Your task to perform on an android device: Look up the best rated gaming chairs on Target. Image 0: 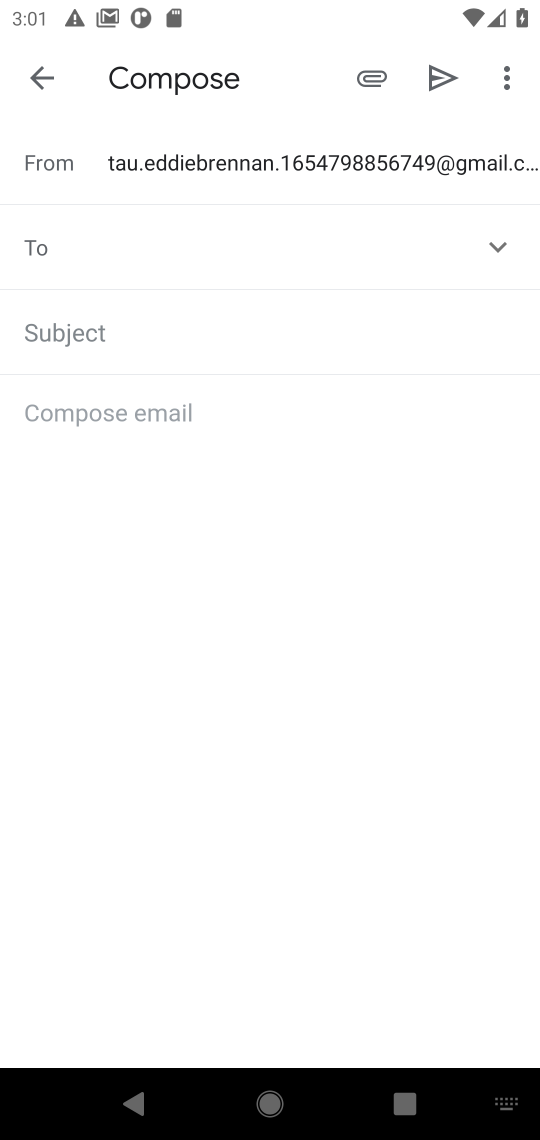
Step 0: press home button
Your task to perform on an android device: Look up the best rated gaming chairs on Target. Image 1: 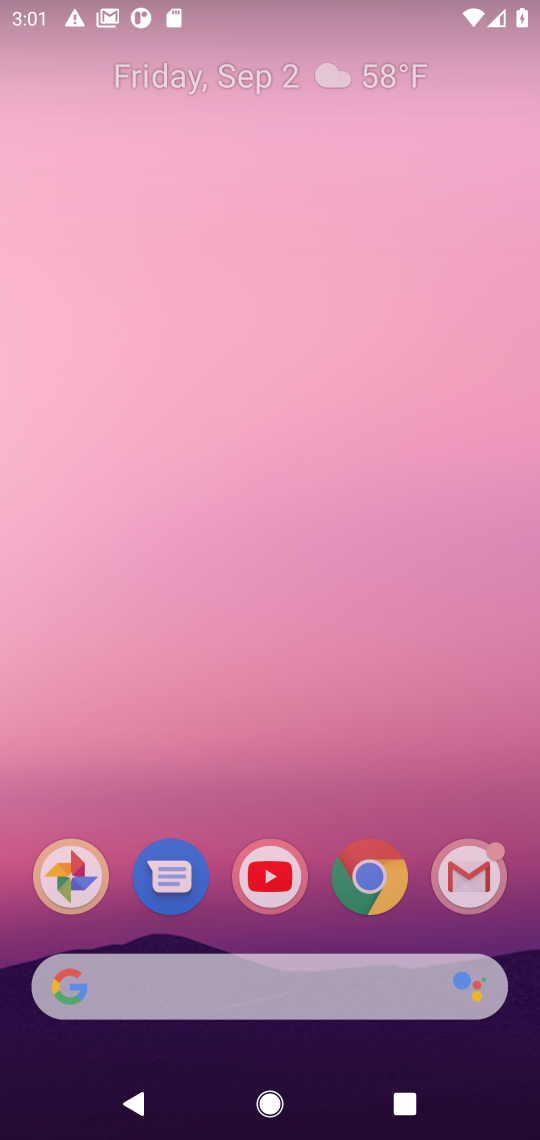
Step 1: press home button
Your task to perform on an android device: Look up the best rated gaming chairs on Target. Image 2: 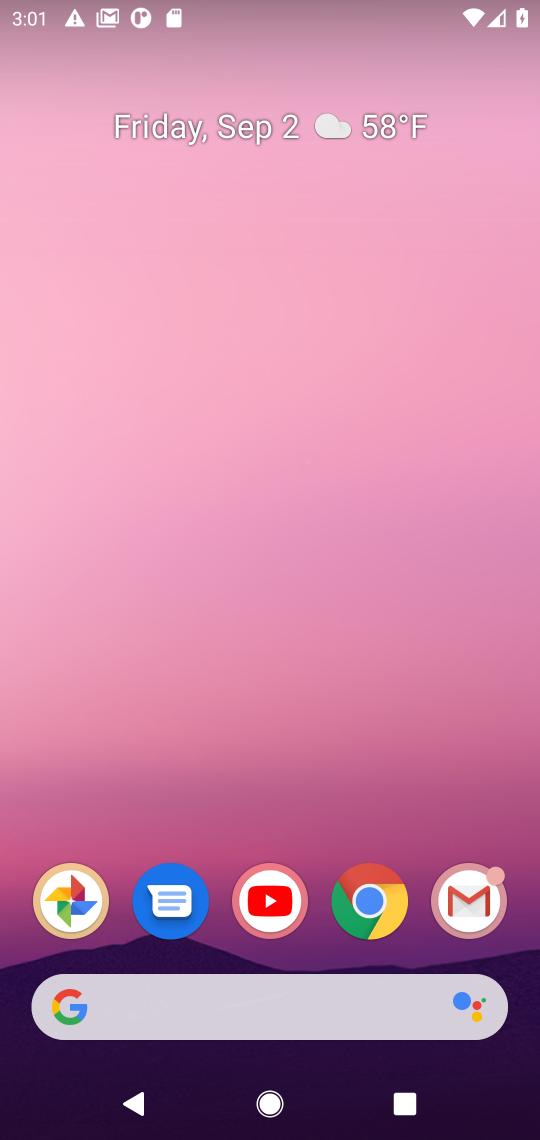
Step 2: drag from (314, 820) to (239, 0)
Your task to perform on an android device: Look up the best rated gaming chairs on Target. Image 3: 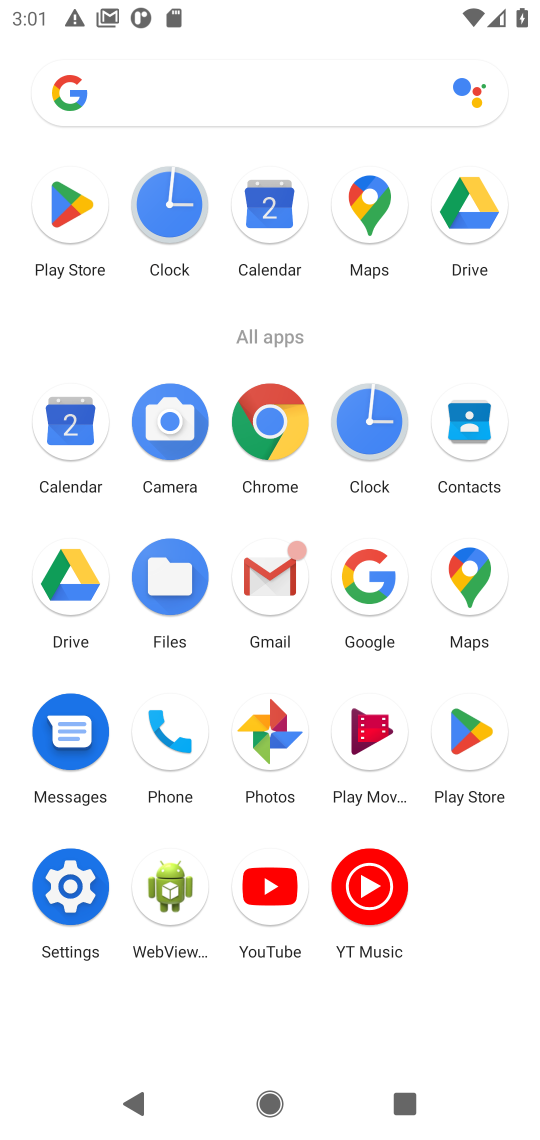
Step 3: click (265, 420)
Your task to perform on an android device: Look up the best rated gaming chairs on Target. Image 4: 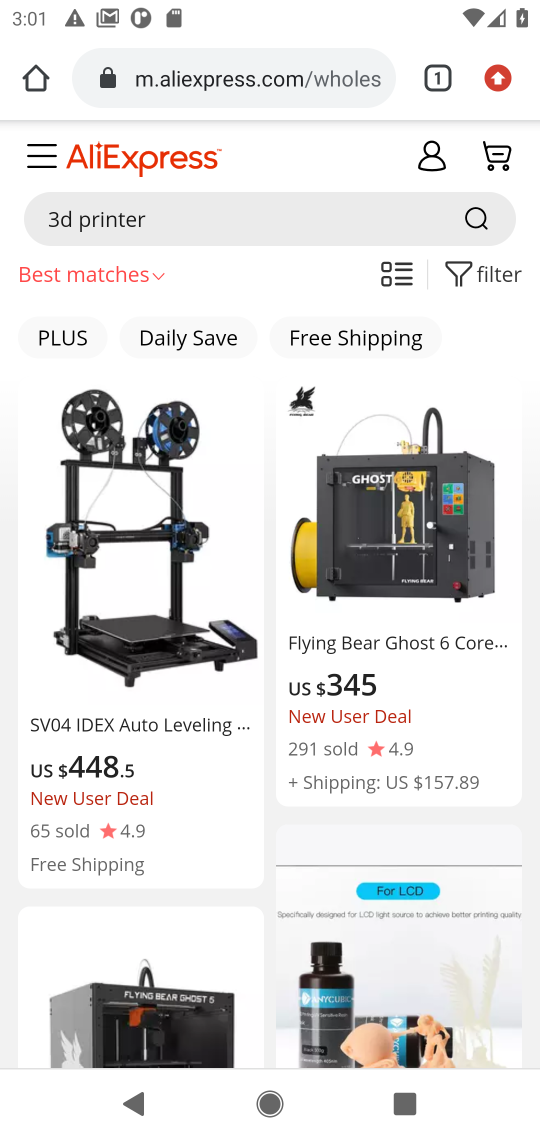
Step 4: click (297, 54)
Your task to perform on an android device: Look up the best rated gaming chairs on Target. Image 5: 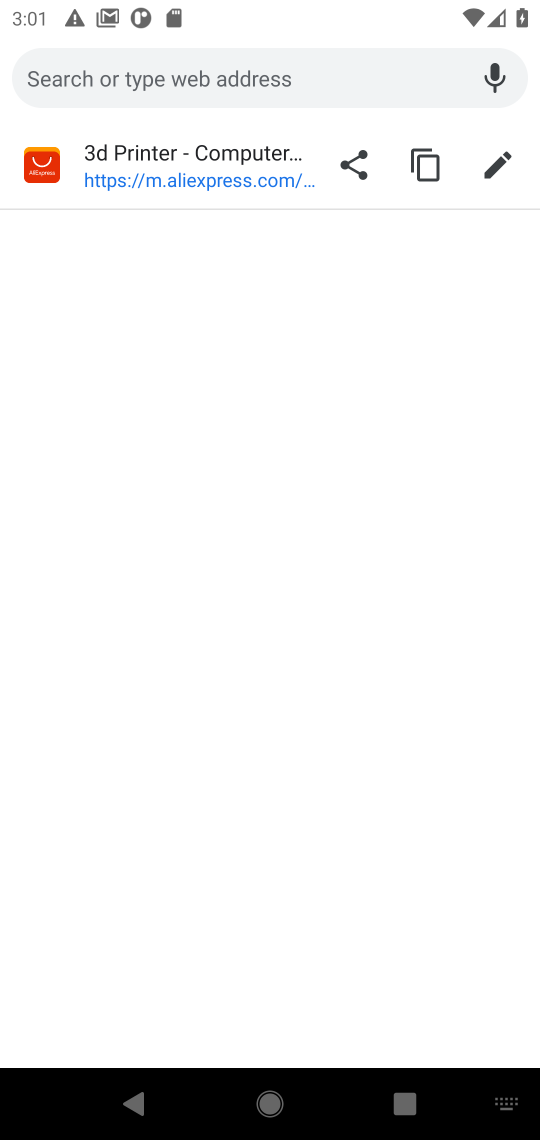
Step 5: type "best rated gaming chairs on Target"
Your task to perform on an android device: Look up the best rated gaming chairs on Target. Image 6: 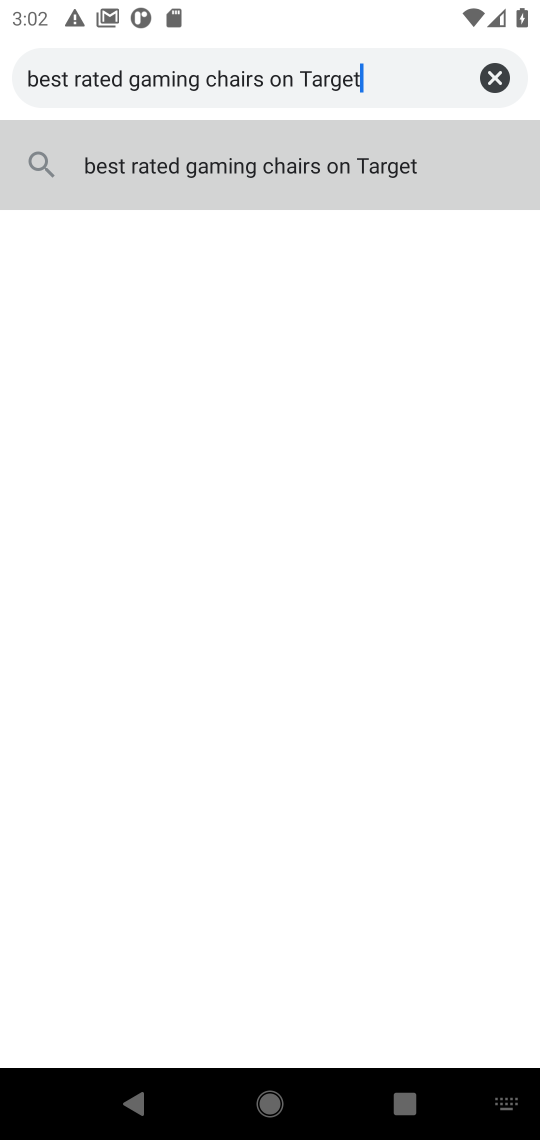
Step 6: press enter
Your task to perform on an android device: Look up the best rated gaming chairs on Target. Image 7: 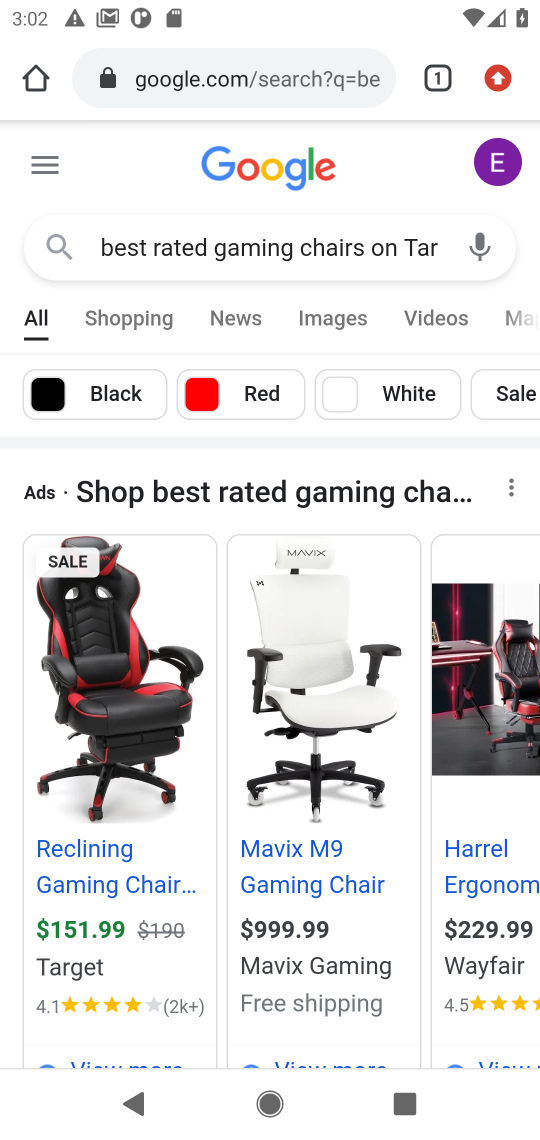
Step 7: drag from (228, 618) to (214, 79)
Your task to perform on an android device: Look up the best rated gaming chairs on Target. Image 8: 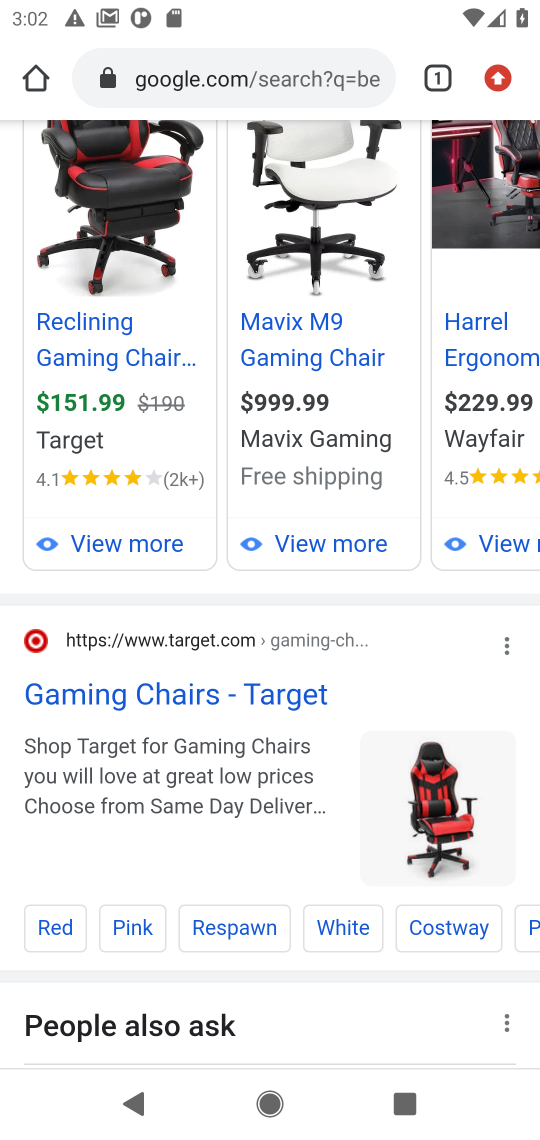
Step 8: click (199, 703)
Your task to perform on an android device: Look up the best rated gaming chairs on Target. Image 9: 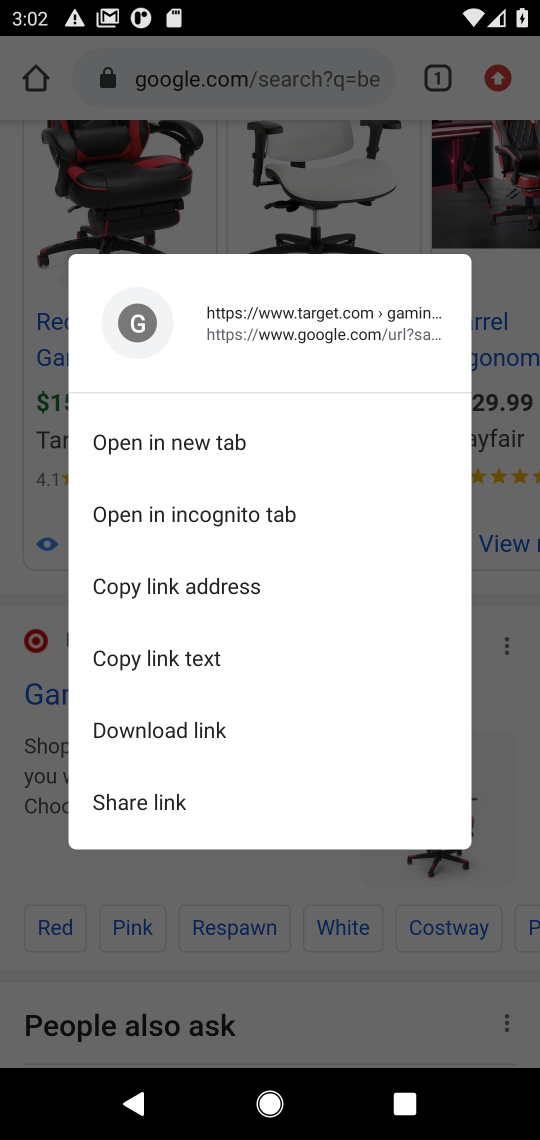
Step 9: click (295, 899)
Your task to perform on an android device: Look up the best rated gaming chairs on Target. Image 10: 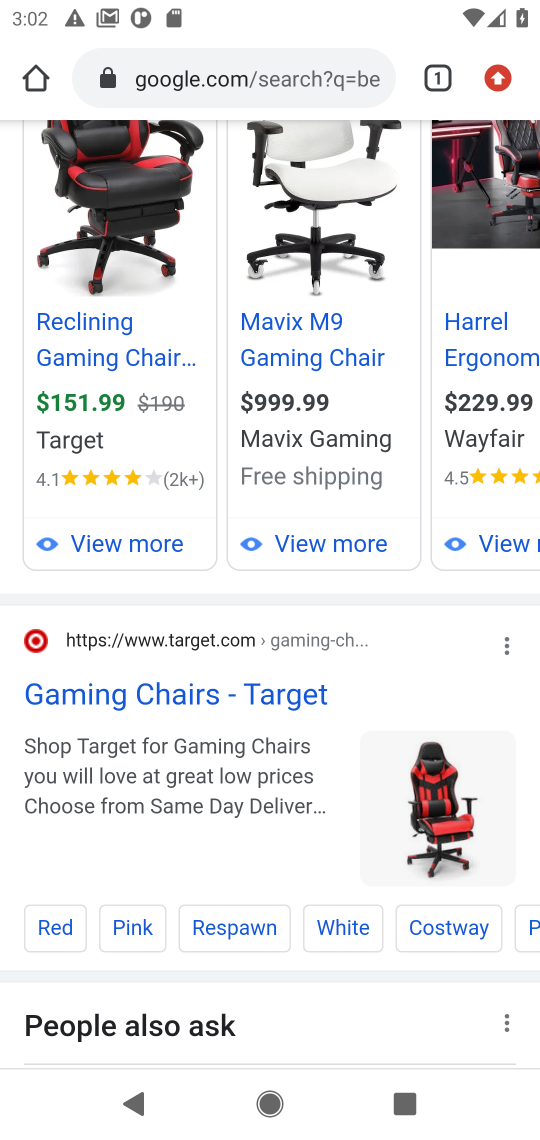
Step 10: drag from (310, 619) to (356, 229)
Your task to perform on an android device: Look up the best rated gaming chairs on Target. Image 11: 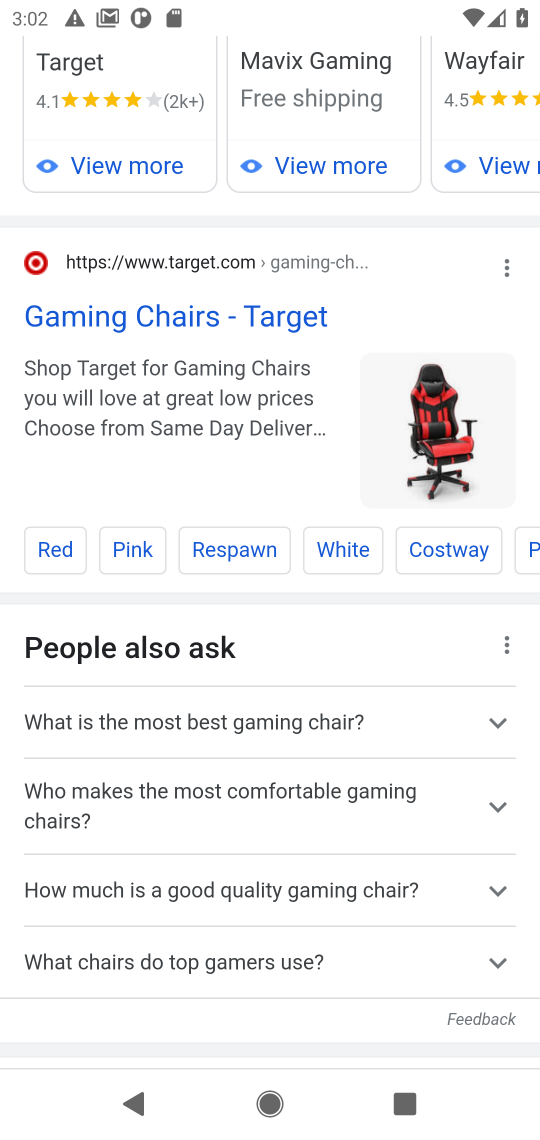
Step 11: drag from (285, 588) to (382, 328)
Your task to perform on an android device: Look up the best rated gaming chairs on Target. Image 12: 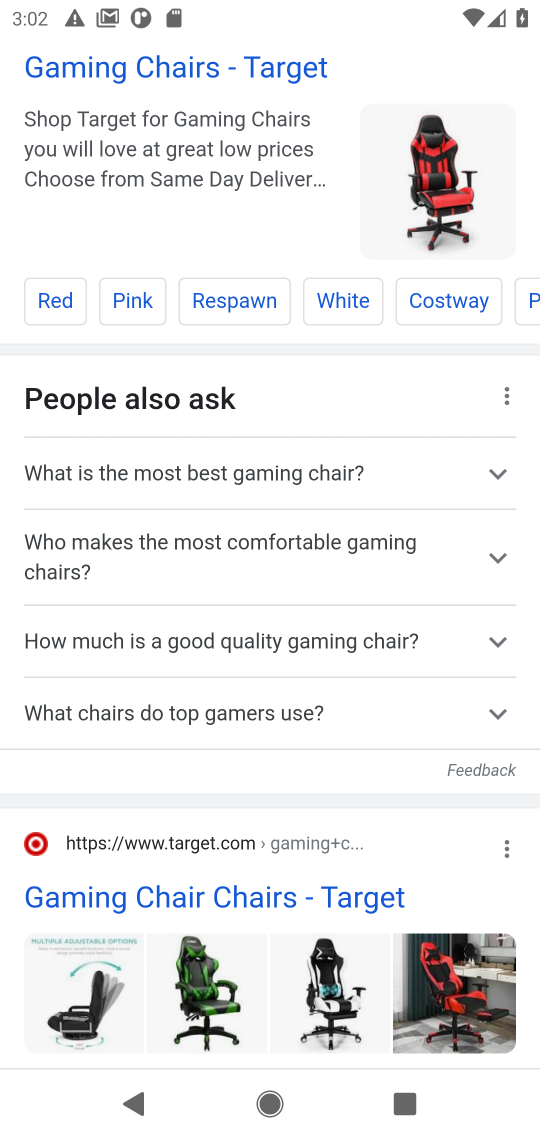
Step 12: drag from (313, 970) to (316, 179)
Your task to perform on an android device: Look up the best rated gaming chairs on Target. Image 13: 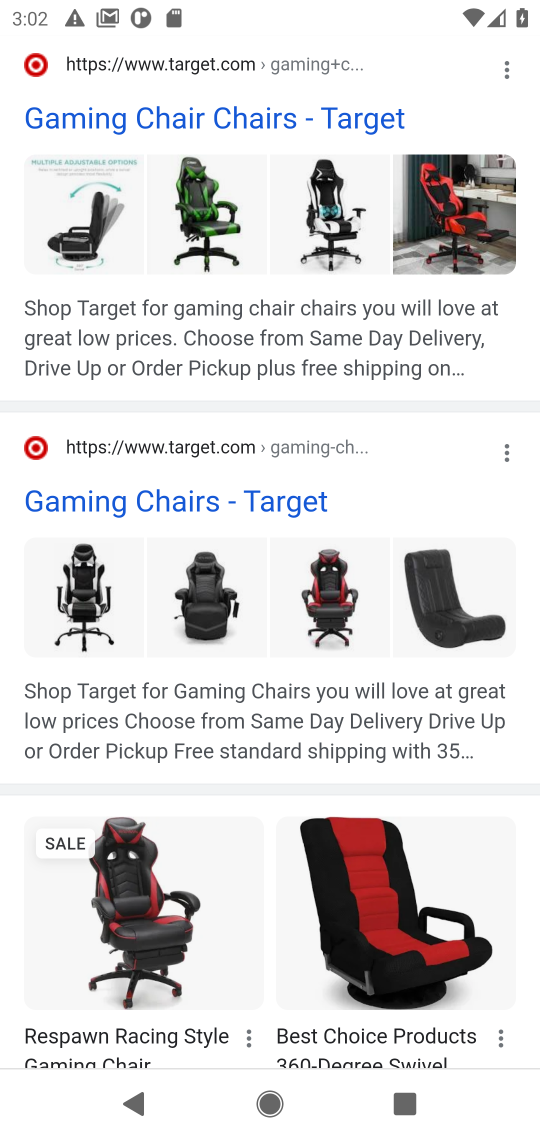
Step 13: click (329, 172)
Your task to perform on an android device: Look up the best rated gaming chairs on Target. Image 14: 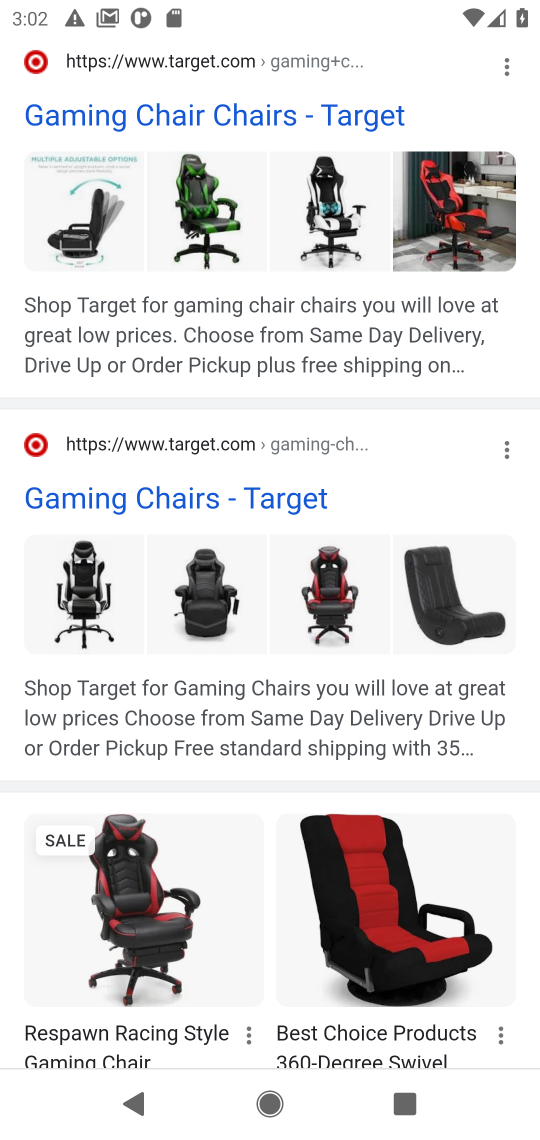
Step 14: task complete